Your task to perform on an android device: add a label to a message in the gmail app Image 0: 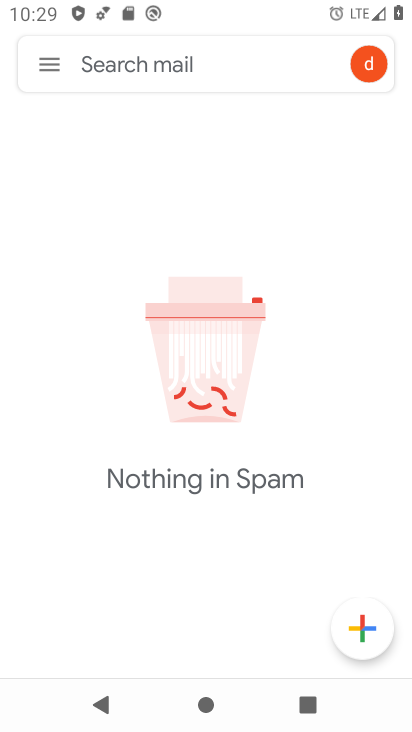
Step 0: click (40, 64)
Your task to perform on an android device: add a label to a message in the gmail app Image 1: 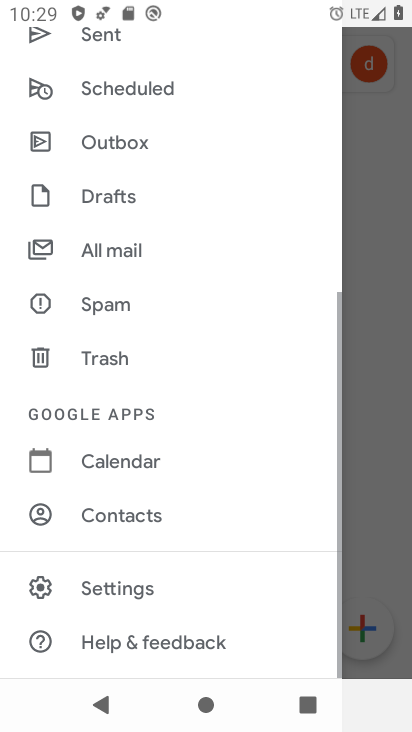
Step 1: task complete